Your task to perform on an android device: Open Android settings Image 0: 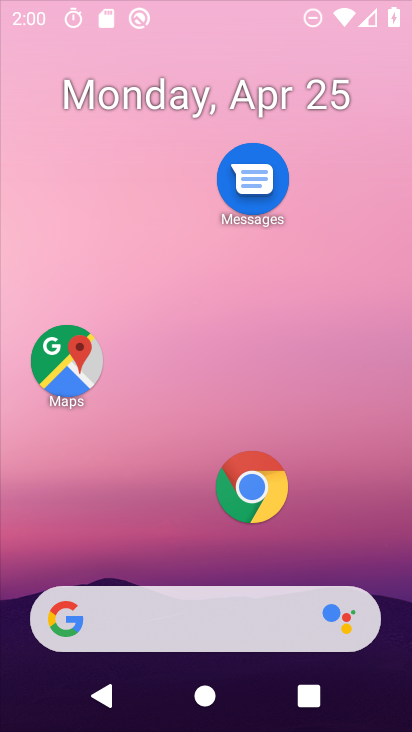
Step 0: click (370, 20)
Your task to perform on an android device: Open Android settings Image 1: 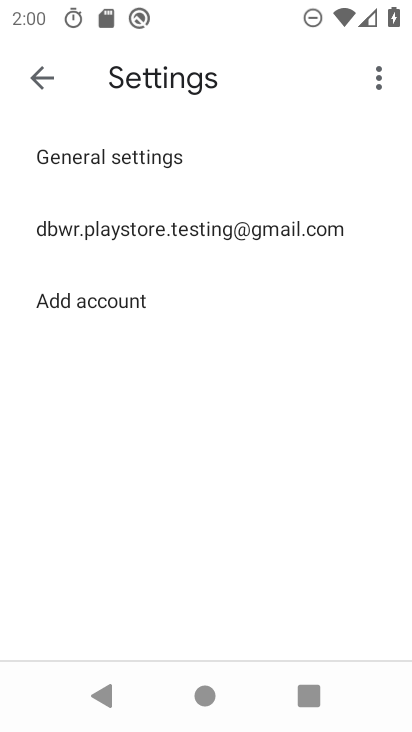
Step 1: press home button
Your task to perform on an android device: Open Android settings Image 2: 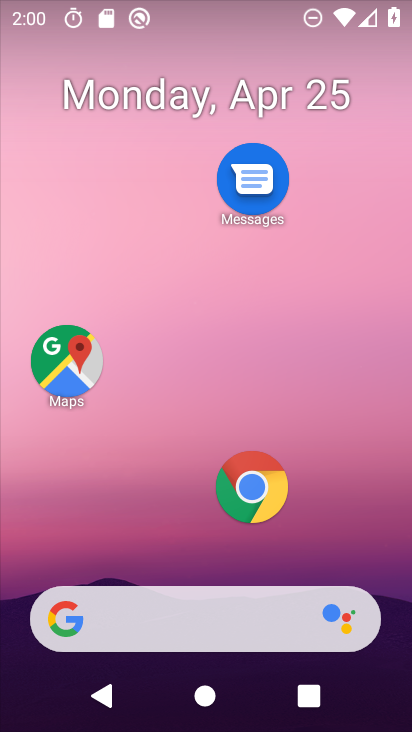
Step 2: drag from (202, 560) to (217, 2)
Your task to perform on an android device: Open Android settings Image 3: 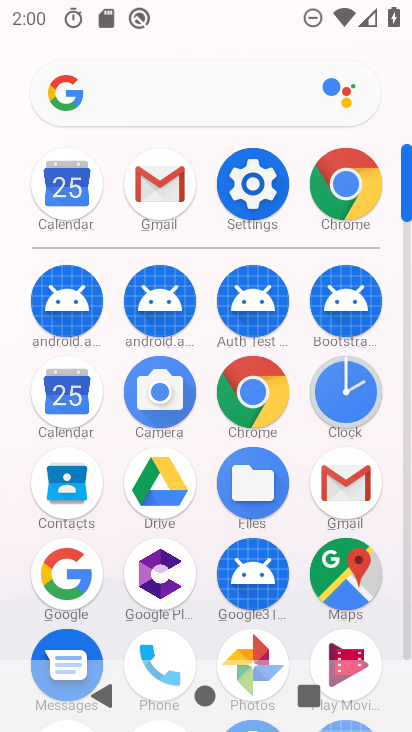
Step 3: drag from (292, 674) to (299, 202)
Your task to perform on an android device: Open Android settings Image 4: 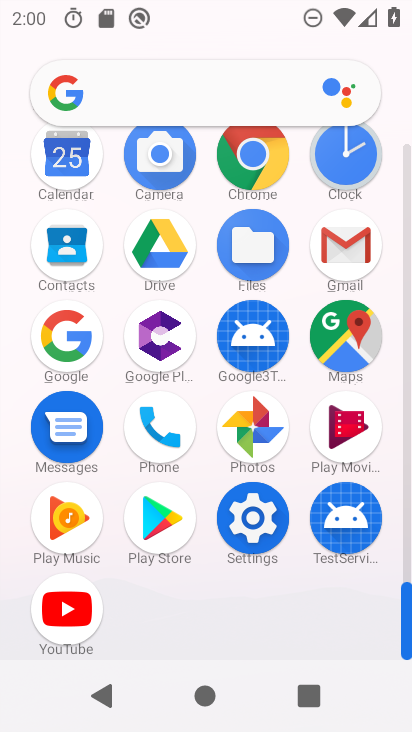
Step 4: click (255, 538)
Your task to perform on an android device: Open Android settings Image 5: 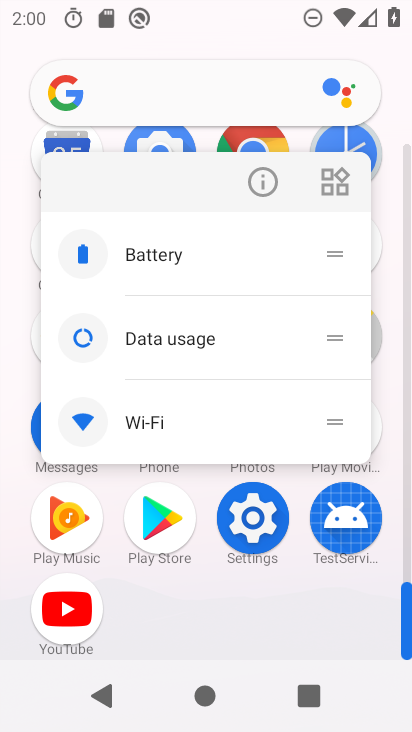
Step 5: click (255, 538)
Your task to perform on an android device: Open Android settings Image 6: 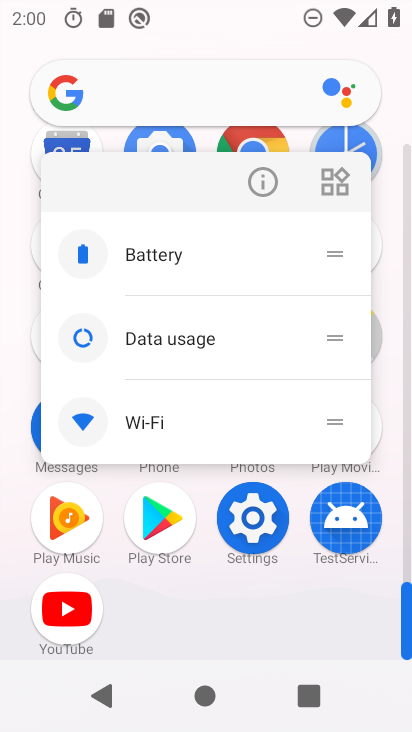
Step 6: click (214, 520)
Your task to perform on an android device: Open Android settings Image 7: 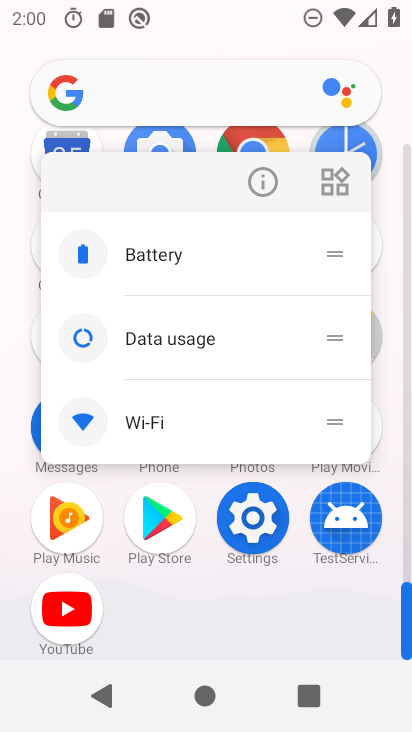
Step 7: click (246, 516)
Your task to perform on an android device: Open Android settings Image 8: 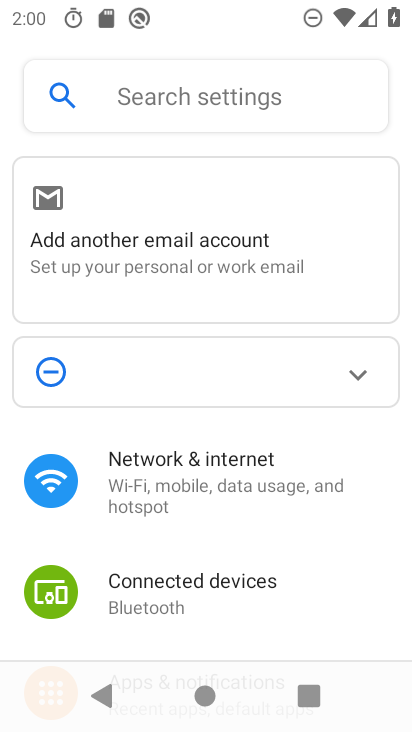
Step 8: drag from (217, 617) to (277, 37)
Your task to perform on an android device: Open Android settings Image 9: 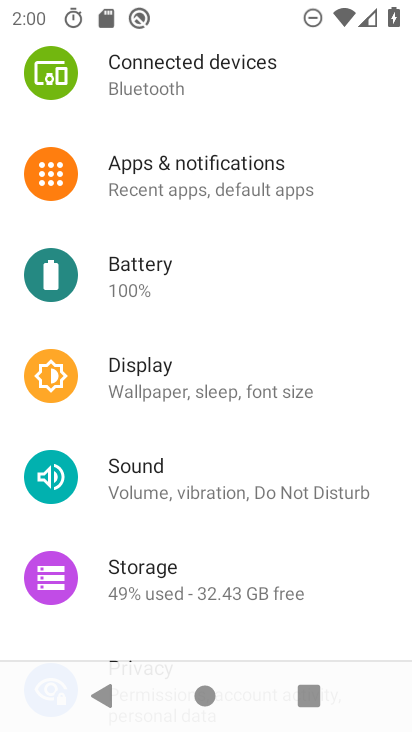
Step 9: drag from (186, 661) to (224, 29)
Your task to perform on an android device: Open Android settings Image 10: 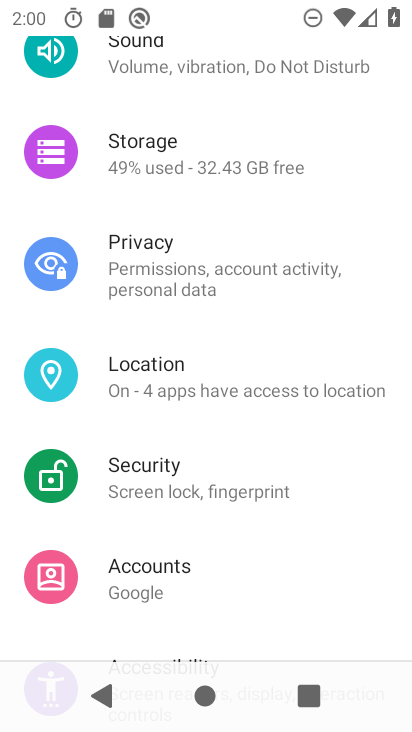
Step 10: drag from (226, 630) to (312, 61)
Your task to perform on an android device: Open Android settings Image 11: 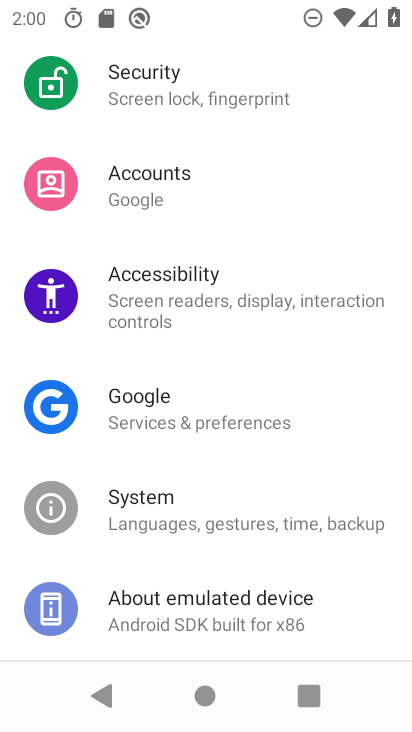
Step 11: drag from (219, 620) to (258, 216)
Your task to perform on an android device: Open Android settings Image 12: 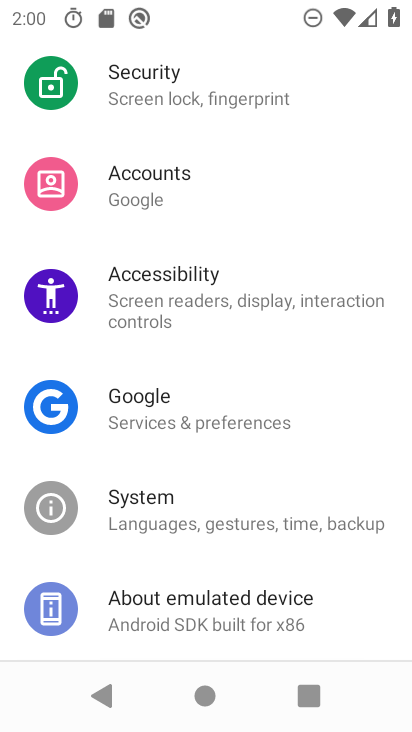
Step 12: click (204, 607)
Your task to perform on an android device: Open Android settings Image 13: 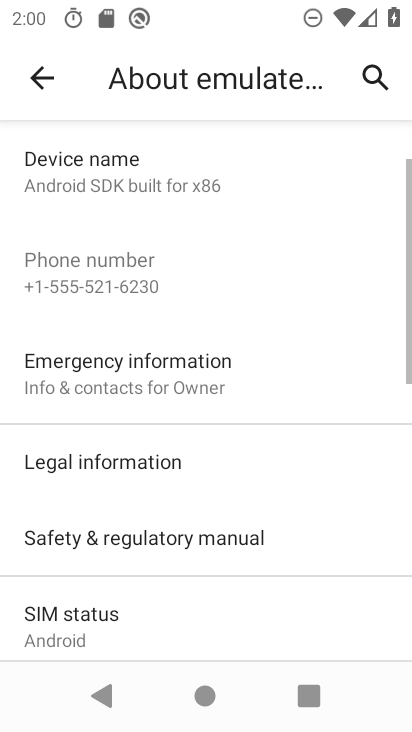
Step 13: drag from (202, 613) to (283, 68)
Your task to perform on an android device: Open Android settings Image 14: 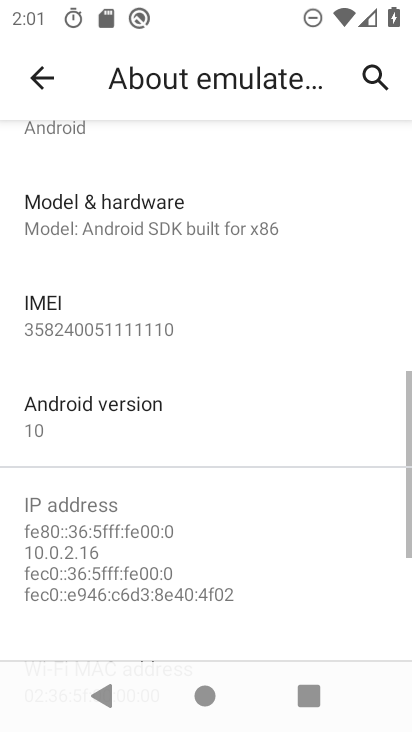
Step 14: click (176, 413)
Your task to perform on an android device: Open Android settings Image 15: 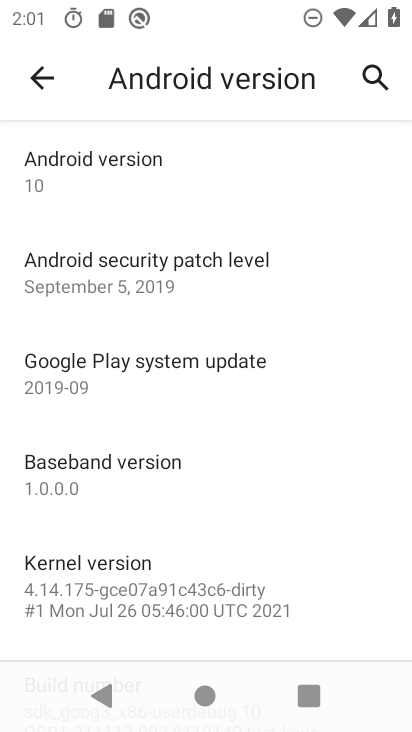
Step 15: click (150, 172)
Your task to perform on an android device: Open Android settings Image 16: 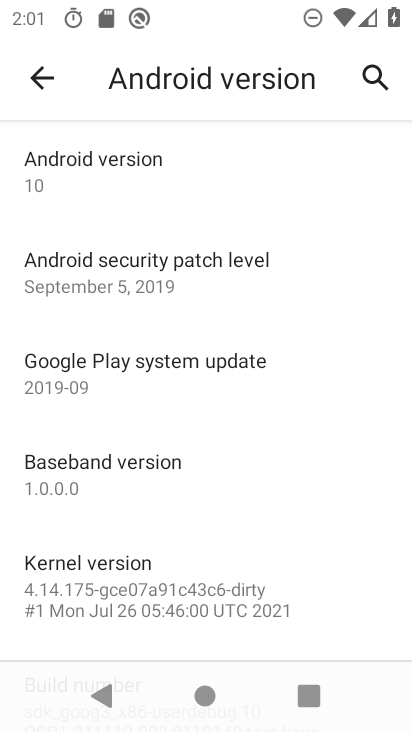
Step 16: click (117, 174)
Your task to perform on an android device: Open Android settings Image 17: 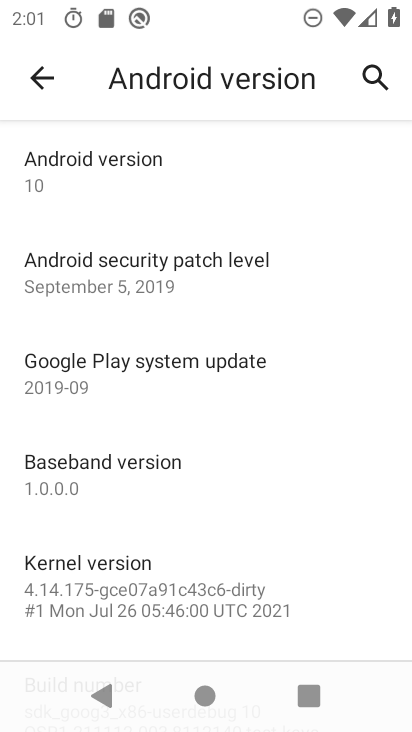
Step 17: task complete